Your task to perform on an android device: empty trash in google photos Image 0: 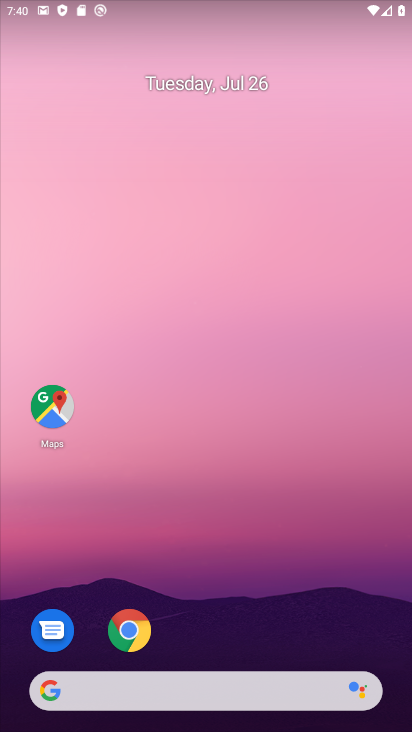
Step 0: drag from (308, 659) to (223, 12)
Your task to perform on an android device: empty trash in google photos Image 1: 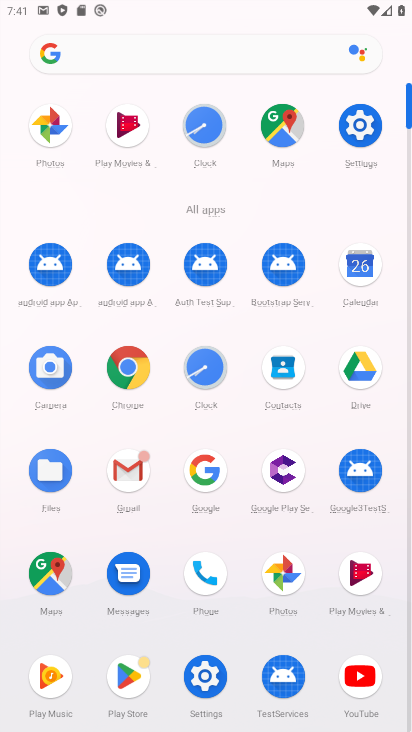
Step 1: click (31, 119)
Your task to perform on an android device: empty trash in google photos Image 2: 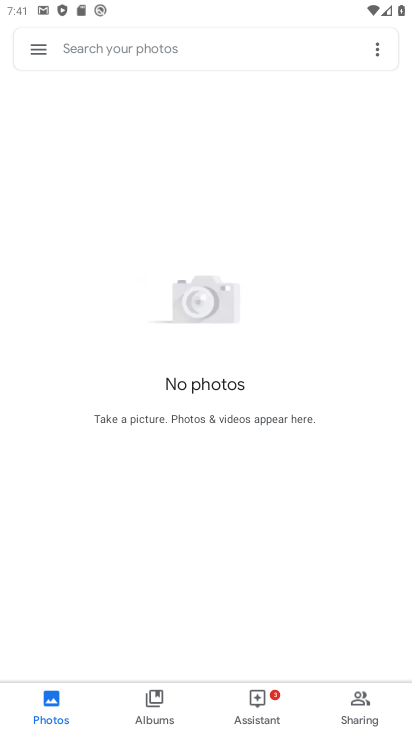
Step 2: click (40, 44)
Your task to perform on an android device: empty trash in google photos Image 3: 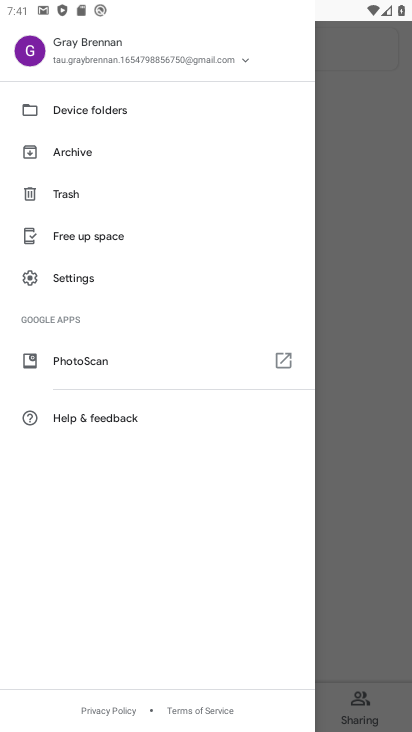
Step 3: click (98, 196)
Your task to perform on an android device: empty trash in google photos Image 4: 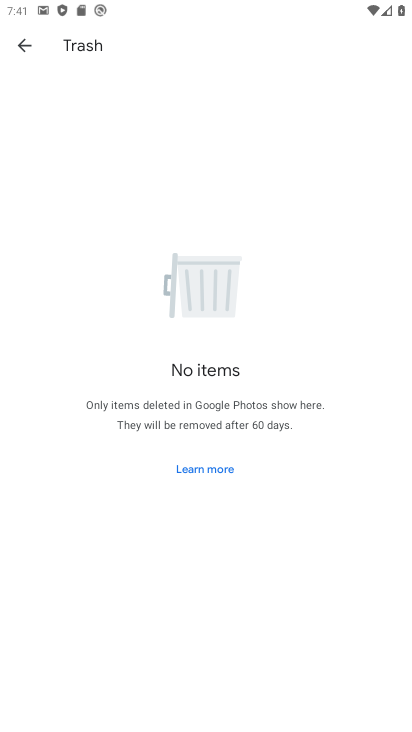
Step 4: task complete